Your task to perform on an android device: find snoozed emails in the gmail app Image 0: 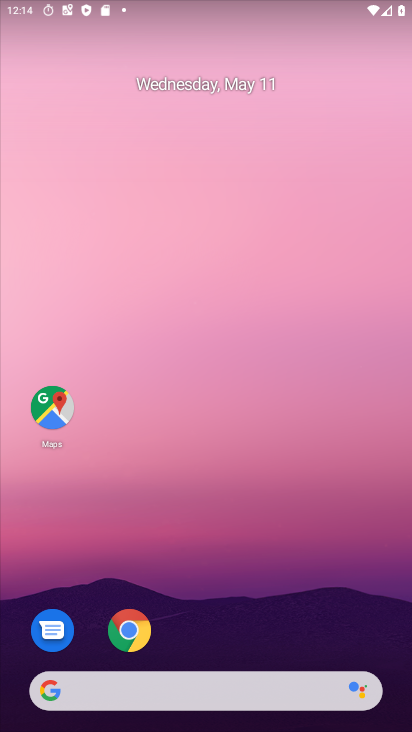
Step 0: drag from (301, 625) to (251, 85)
Your task to perform on an android device: find snoozed emails in the gmail app Image 1: 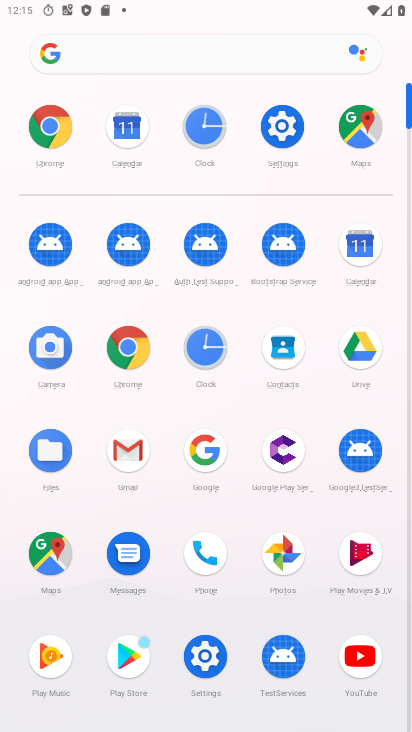
Step 1: click (135, 446)
Your task to perform on an android device: find snoozed emails in the gmail app Image 2: 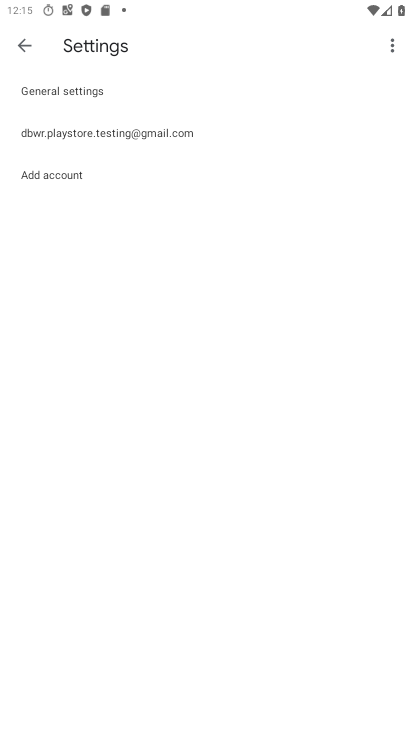
Step 2: click (81, 137)
Your task to perform on an android device: find snoozed emails in the gmail app Image 3: 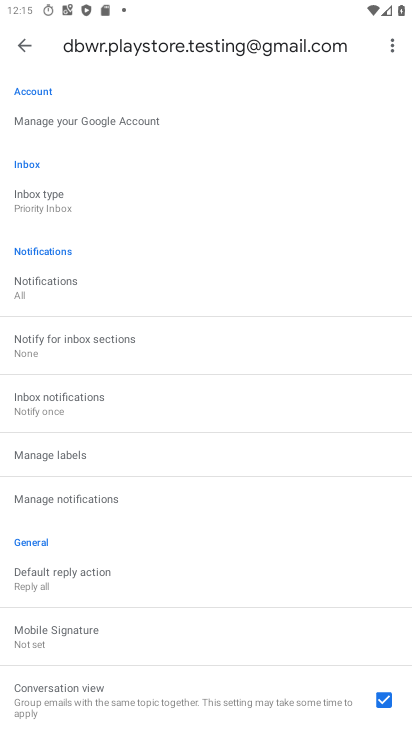
Step 3: click (21, 38)
Your task to perform on an android device: find snoozed emails in the gmail app Image 4: 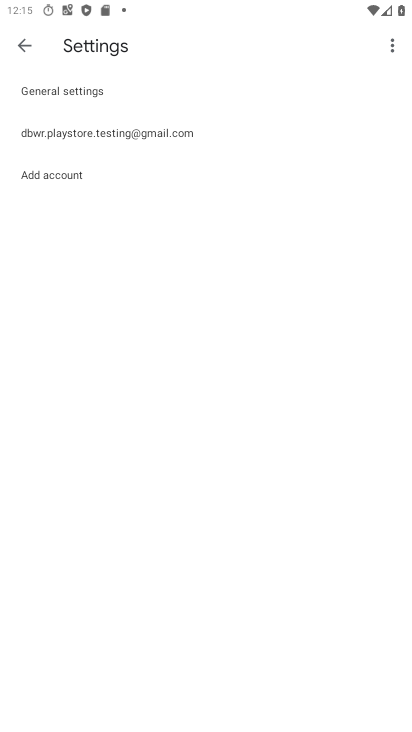
Step 4: click (23, 47)
Your task to perform on an android device: find snoozed emails in the gmail app Image 5: 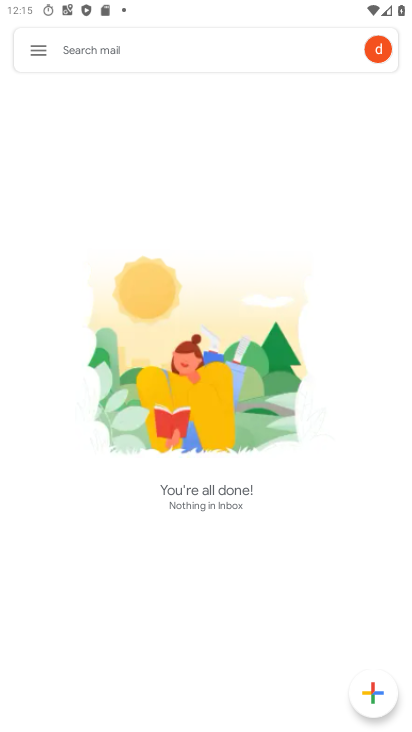
Step 5: click (32, 48)
Your task to perform on an android device: find snoozed emails in the gmail app Image 6: 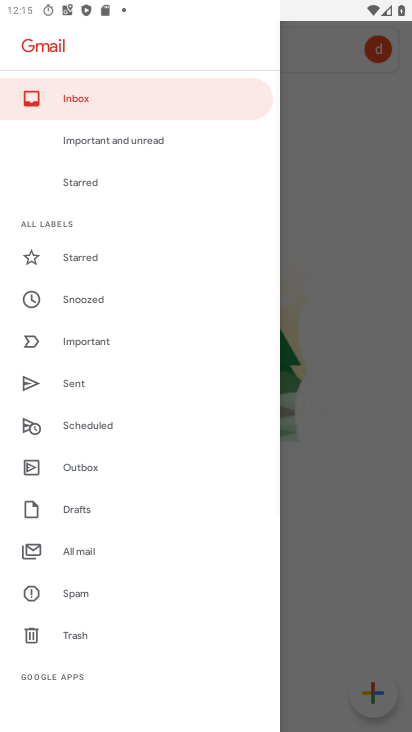
Step 6: click (89, 296)
Your task to perform on an android device: find snoozed emails in the gmail app Image 7: 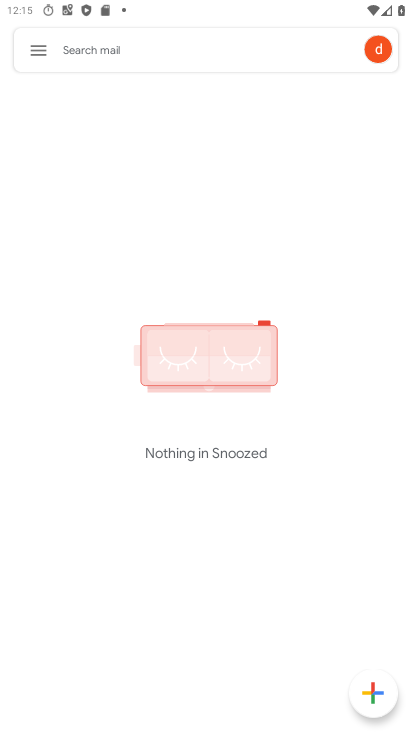
Step 7: task complete